Your task to perform on an android device: Open calendar and show me the second week of next month Image 0: 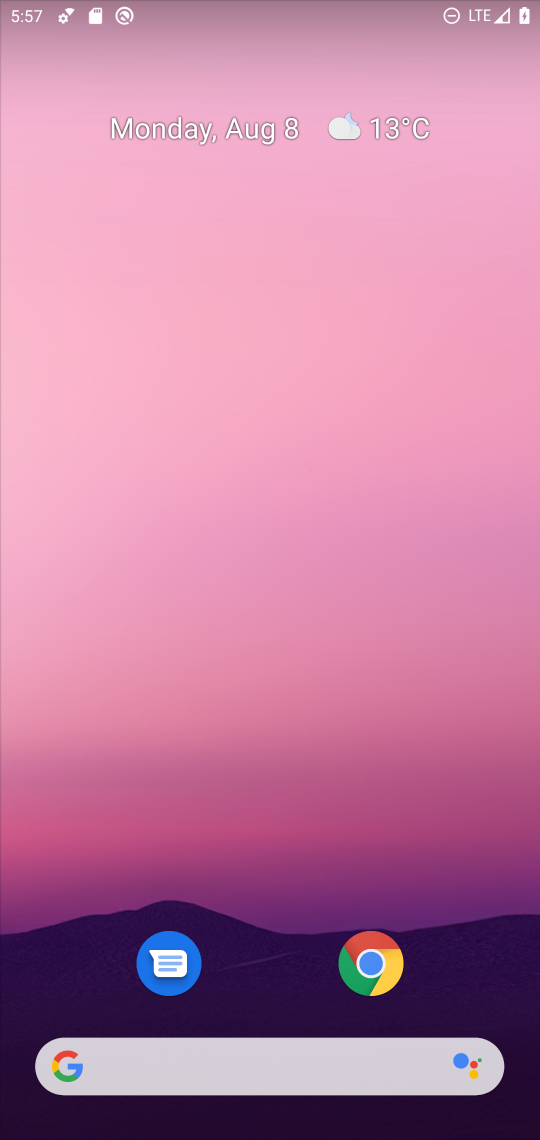
Step 0: press home button
Your task to perform on an android device: Open calendar and show me the second week of next month Image 1: 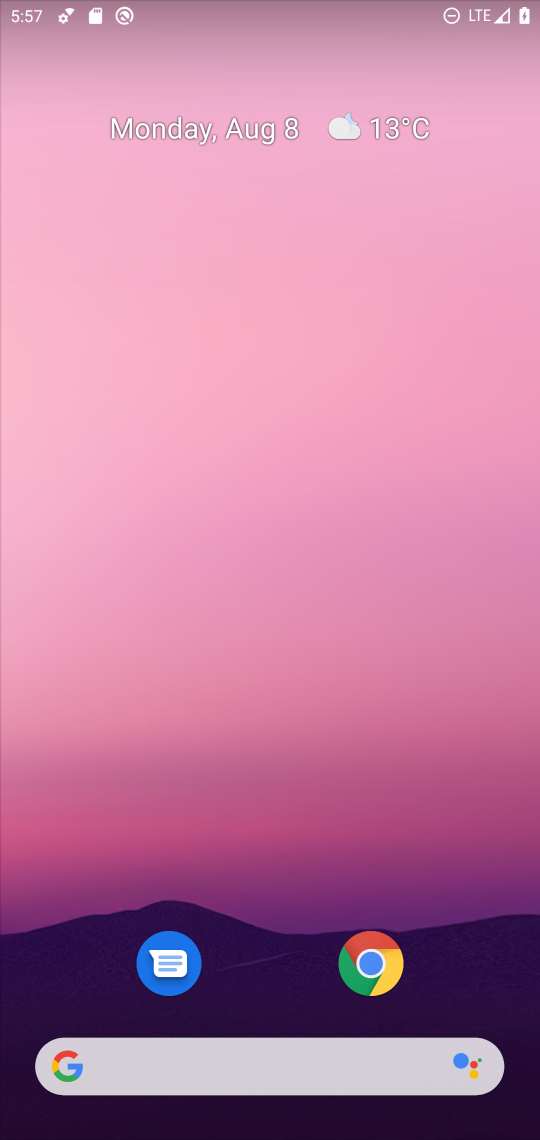
Step 1: drag from (271, 883) to (317, 79)
Your task to perform on an android device: Open calendar and show me the second week of next month Image 2: 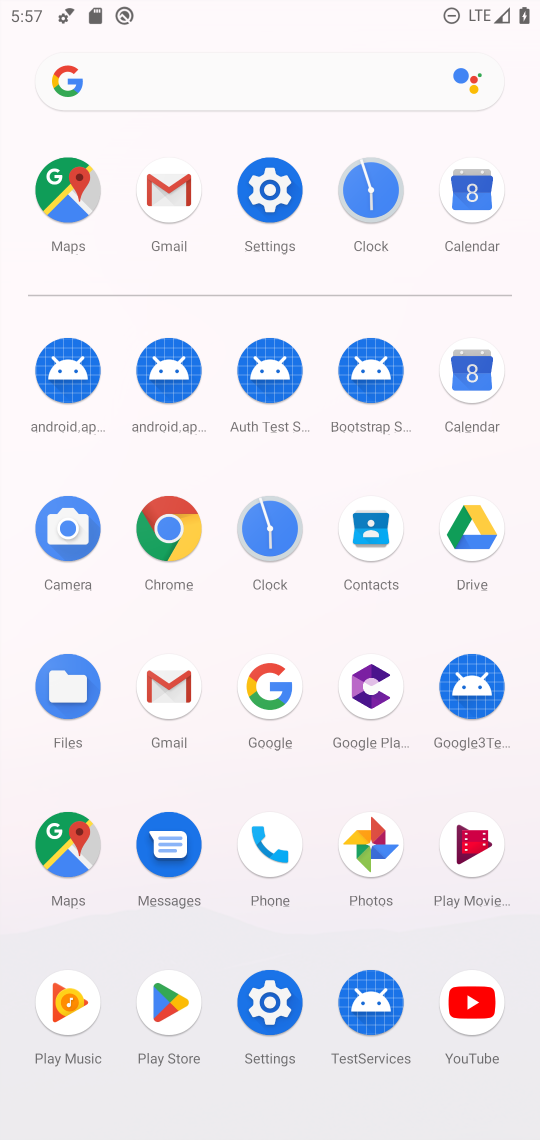
Step 2: click (456, 376)
Your task to perform on an android device: Open calendar and show me the second week of next month Image 3: 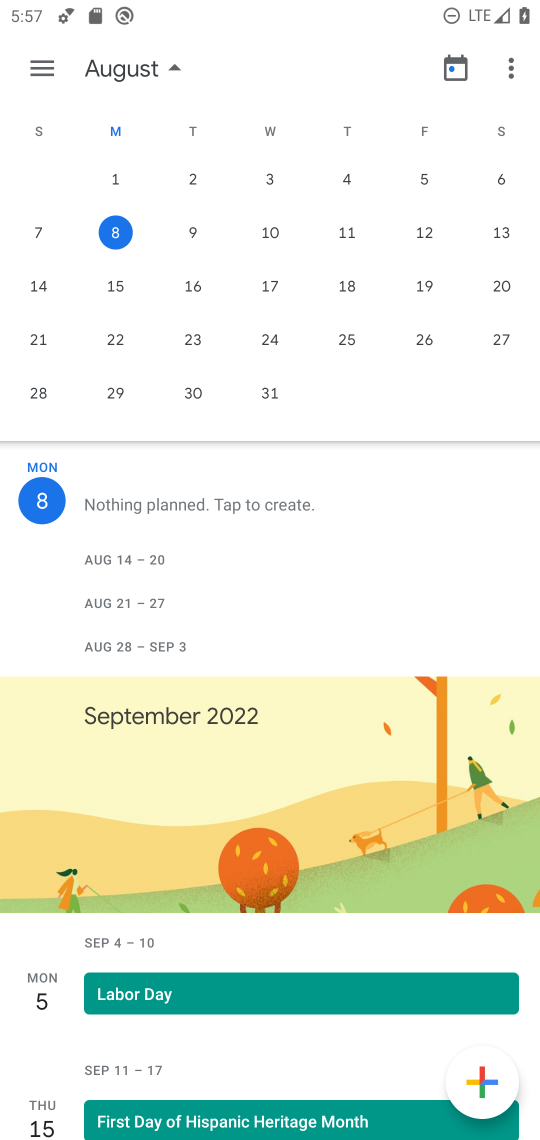
Step 3: drag from (486, 350) to (38, 348)
Your task to perform on an android device: Open calendar and show me the second week of next month Image 4: 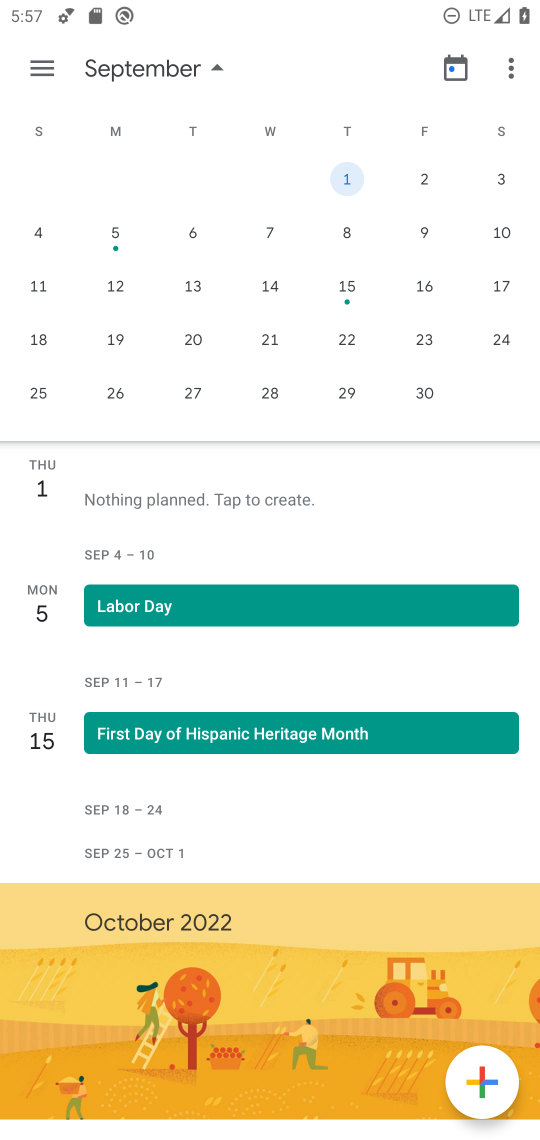
Step 4: click (46, 238)
Your task to perform on an android device: Open calendar and show me the second week of next month Image 5: 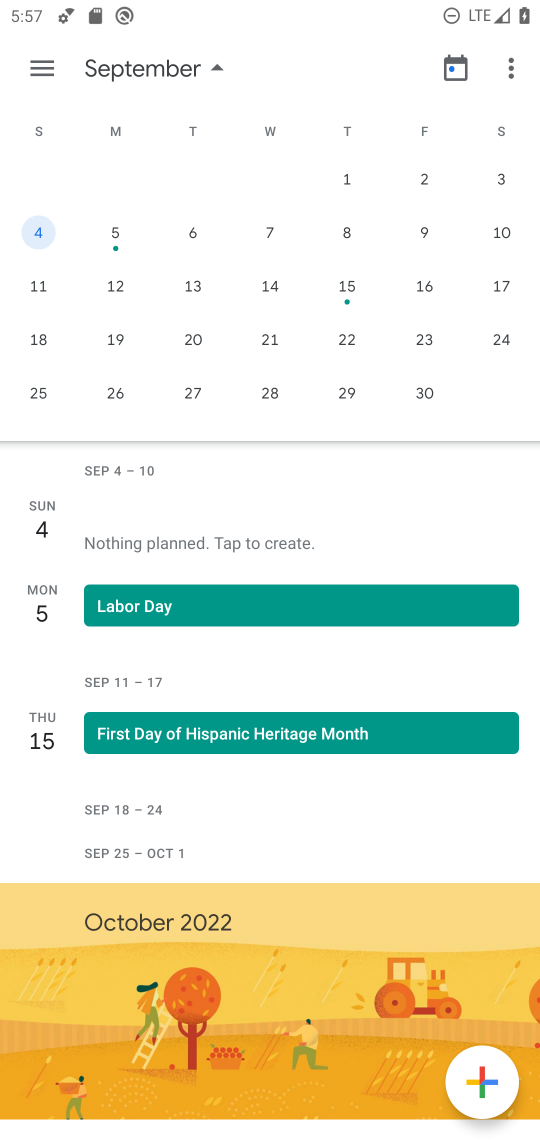
Step 5: task complete